Your task to perform on an android device: Open Yahoo.com Image 0: 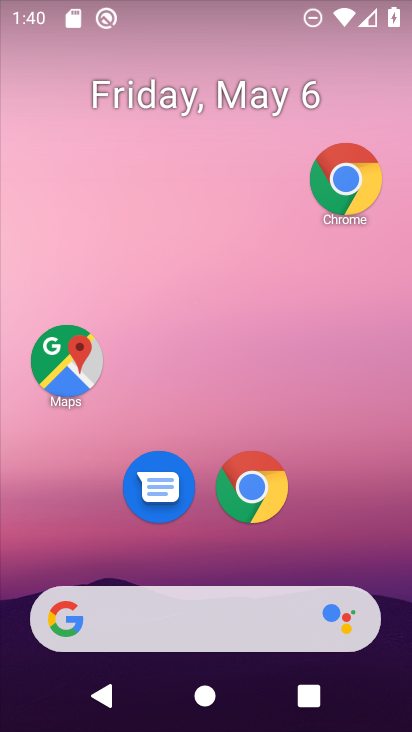
Step 0: click (260, 506)
Your task to perform on an android device: Open Yahoo.com Image 1: 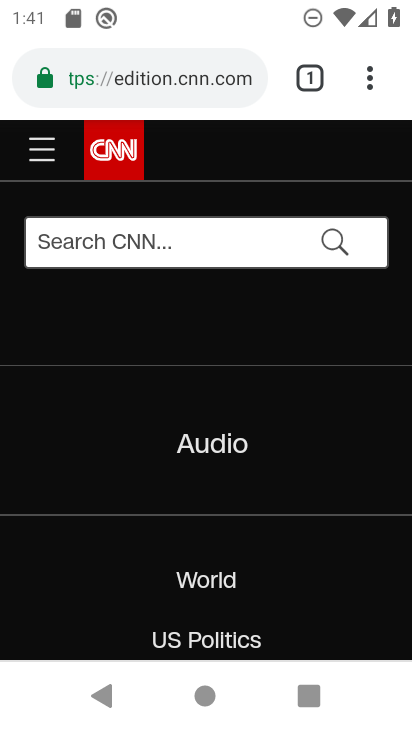
Step 1: click (184, 66)
Your task to perform on an android device: Open Yahoo.com Image 2: 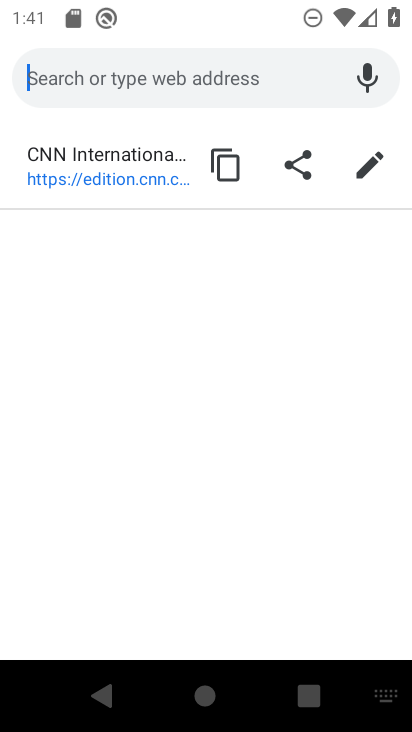
Step 2: type "yahoo.com"
Your task to perform on an android device: Open Yahoo.com Image 3: 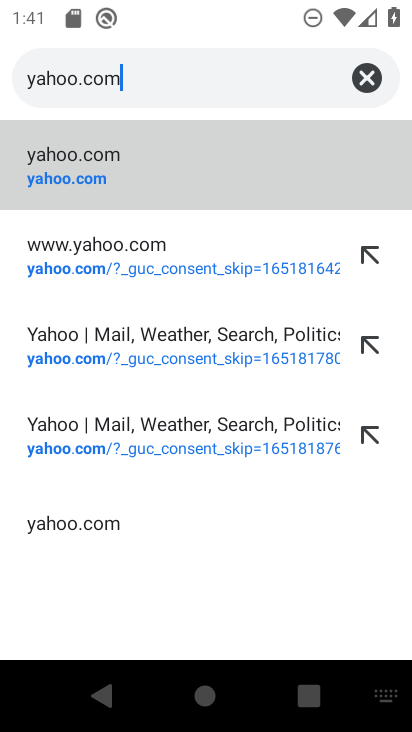
Step 3: click (138, 195)
Your task to perform on an android device: Open Yahoo.com Image 4: 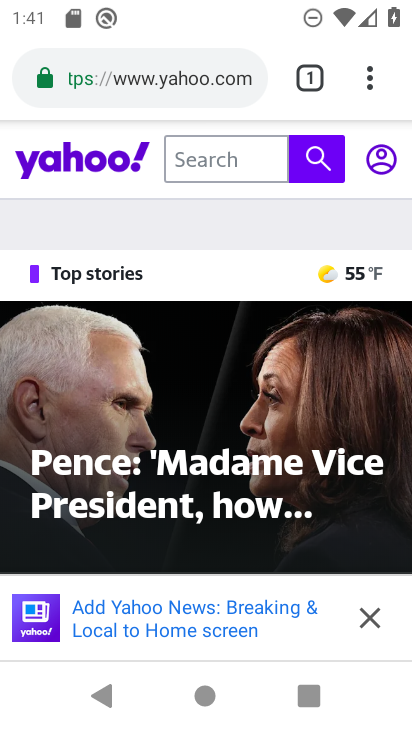
Step 4: task complete